Your task to perform on an android device: turn off priority inbox in the gmail app Image 0: 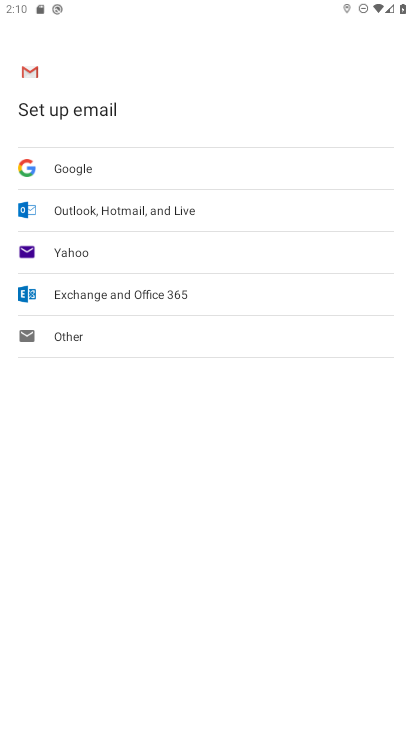
Step 0: press home button
Your task to perform on an android device: turn off priority inbox in the gmail app Image 1: 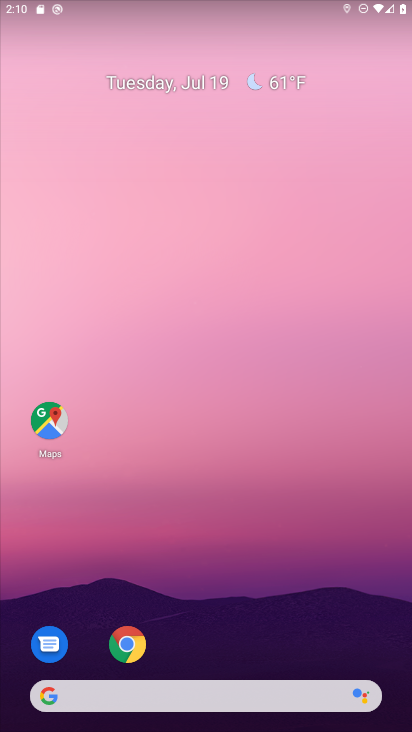
Step 1: drag from (195, 671) to (127, 21)
Your task to perform on an android device: turn off priority inbox in the gmail app Image 2: 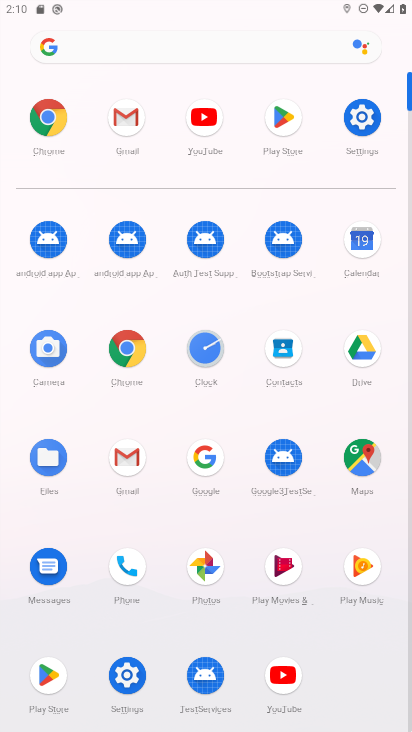
Step 2: click (133, 458)
Your task to perform on an android device: turn off priority inbox in the gmail app Image 3: 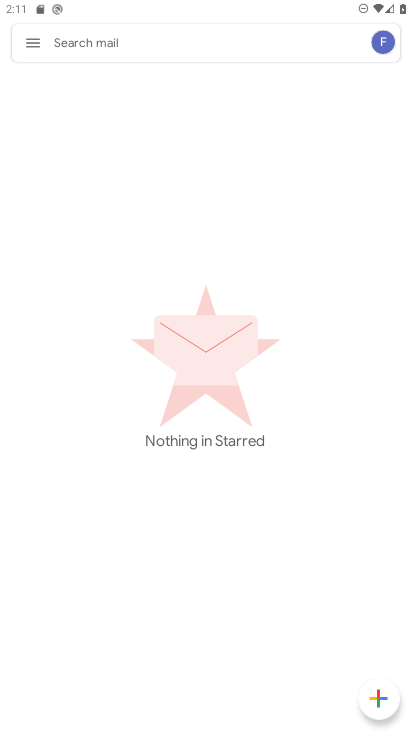
Step 3: click (27, 40)
Your task to perform on an android device: turn off priority inbox in the gmail app Image 4: 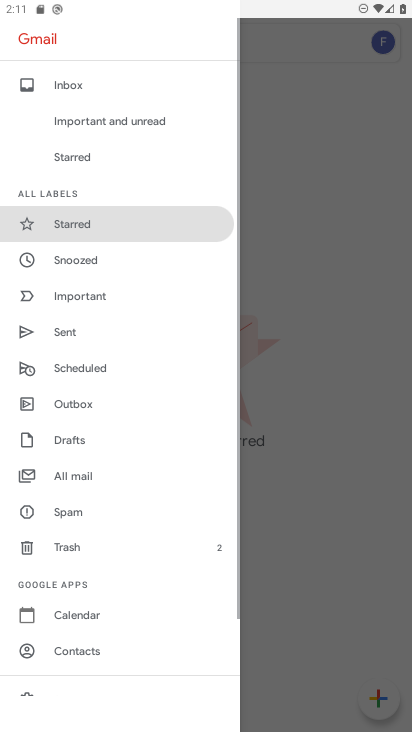
Step 4: drag from (113, 591) to (102, 145)
Your task to perform on an android device: turn off priority inbox in the gmail app Image 5: 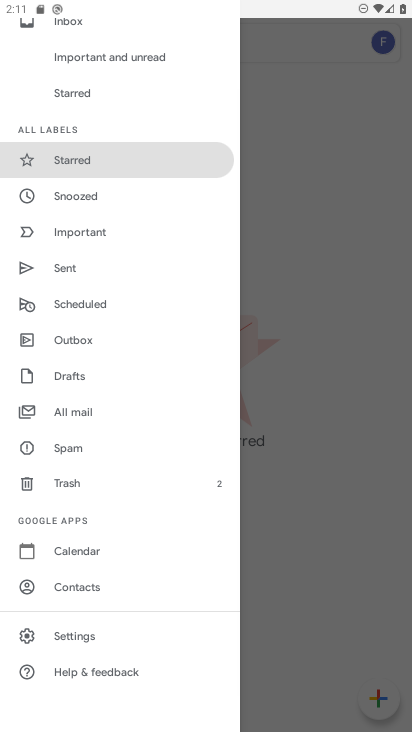
Step 5: click (68, 635)
Your task to perform on an android device: turn off priority inbox in the gmail app Image 6: 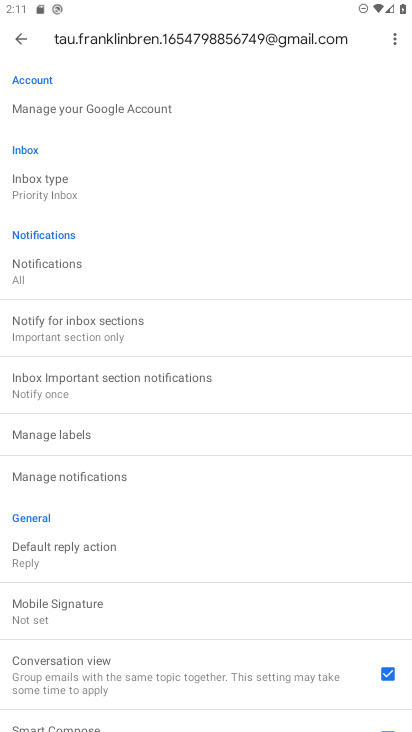
Step 6: click (9, 174)
Your task to perform on an android device: turn off priority inbox in the gmail app Image 7: 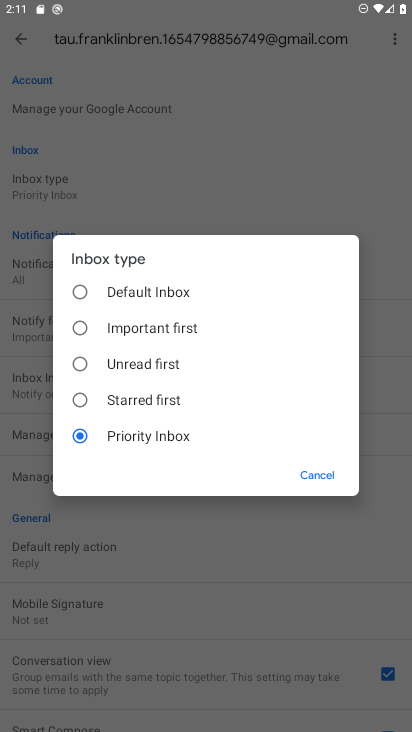
Step 7: click (129, 299)
Your task to perform on an android device: turn off priority inbox in the gmail app Image 8: 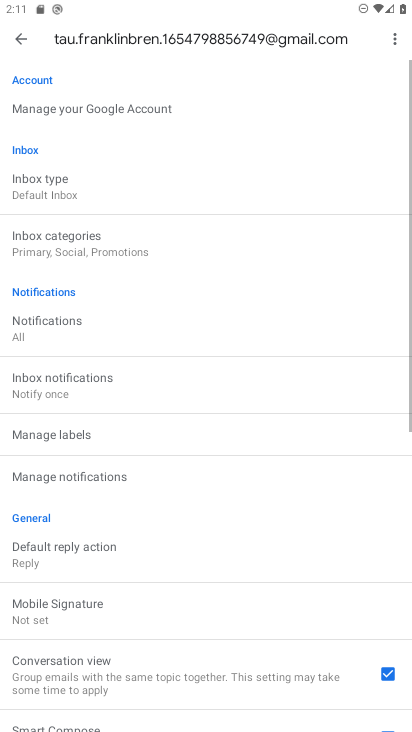
Step 8: task complete